Your task to perform on an android device: Search for Italian restaurants on Maps Image 0: 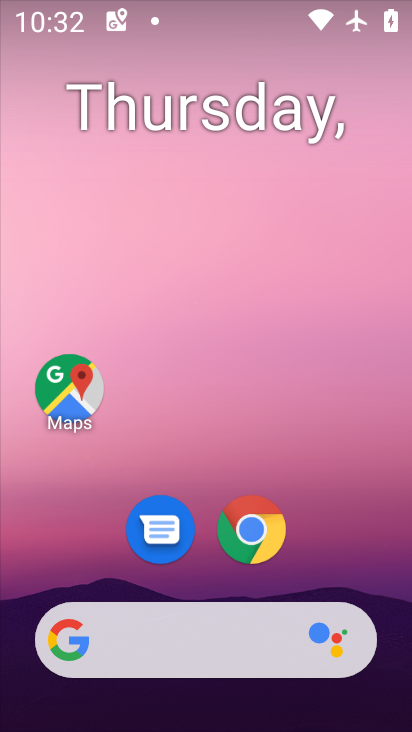
Step 0: drag from (338, 531) to (286, 101)
Your task to perform on an android device: Search for Italian restaurants on Maps Image 1: 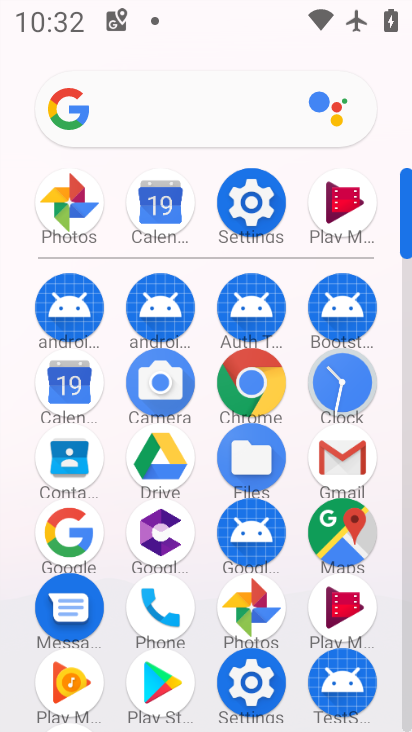
Step 1: click (329, 536)
Your task to perform on an android device: Search for Italian restaurants on Maps Image 2: 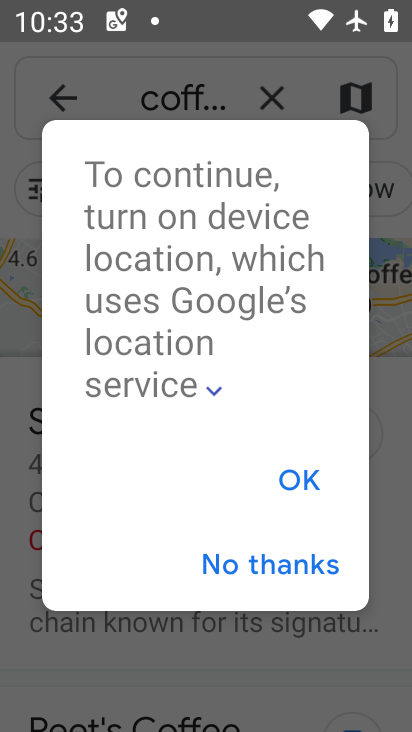
Step 2: click (319, 556)
Your task to perform on an android device: Search for Italian restaurants on Maps Image 3: 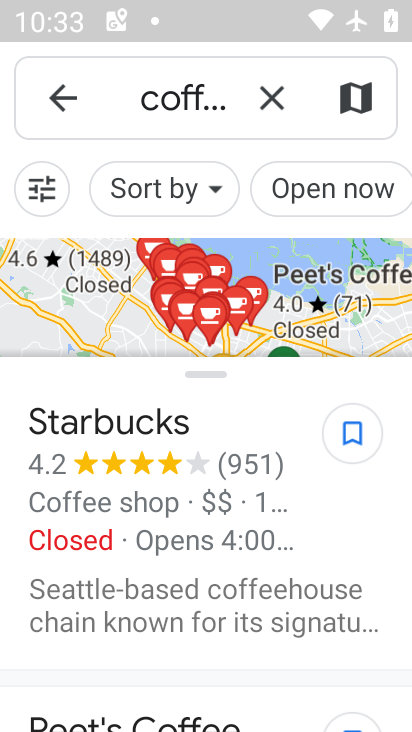
Step 3: click (280, 96)
Your task to perform on an android device: Search for Italian restaurants on Maps Image 4: 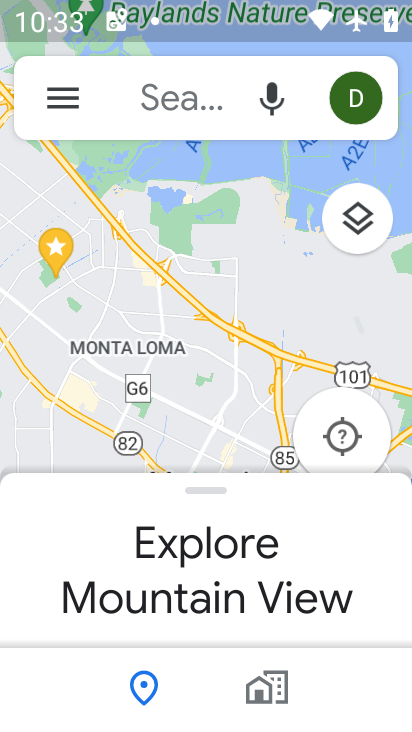
Step 4: click (172, 94)
Your task to perform on an android device: Search for Italian restaurants on Maps Image 5: 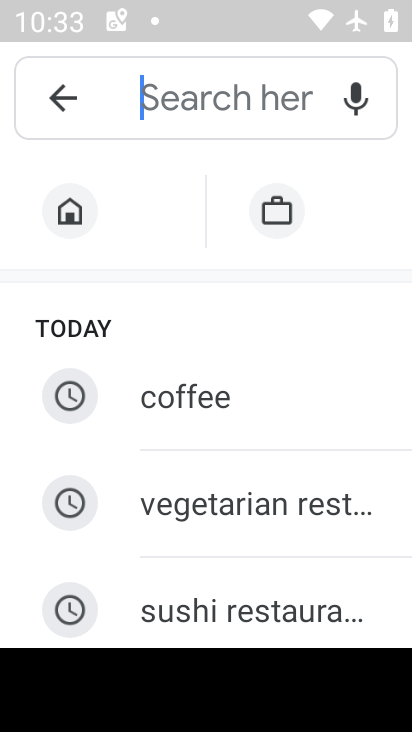
Step 5: type "italian restaurant"
Your task to perform on an android device: Search for Italian restaurants on Maps Image 6: 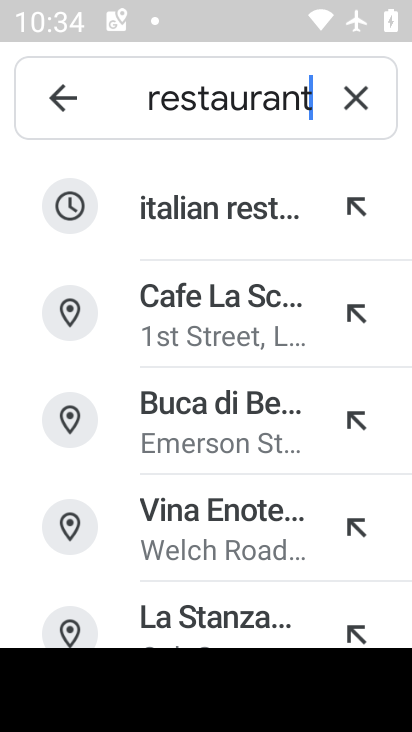
Step 6: click (192, 210)
Your task to perform on an android device: Search for Italian restaurants on Maps Image 7: 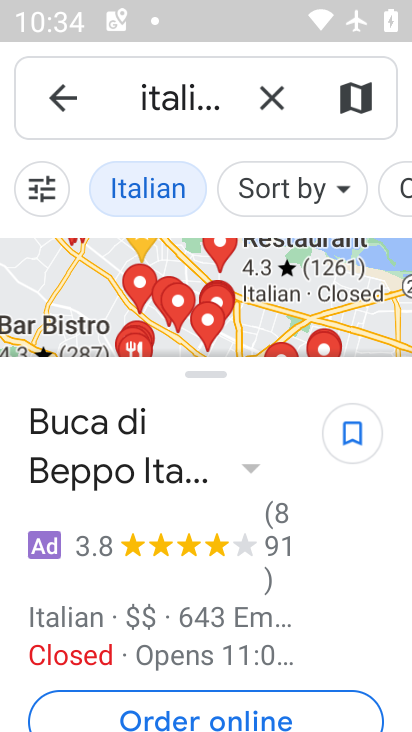
Step 7: task complete